Your task to perform on an android device: Open the map Image 0: 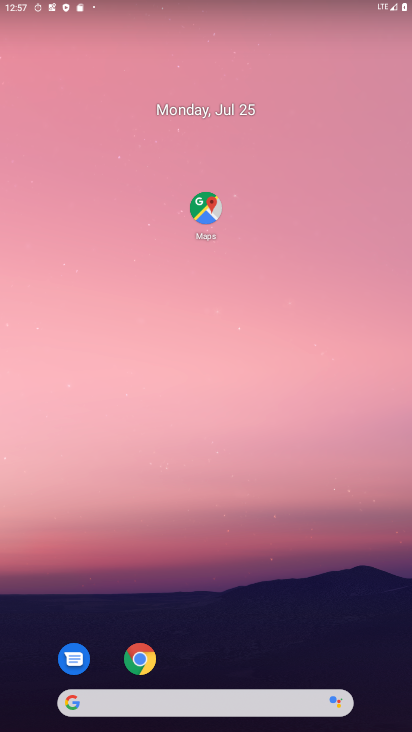
Step 0: click (201, 196)
Your task to perform on an android device: Open the map Image 1: 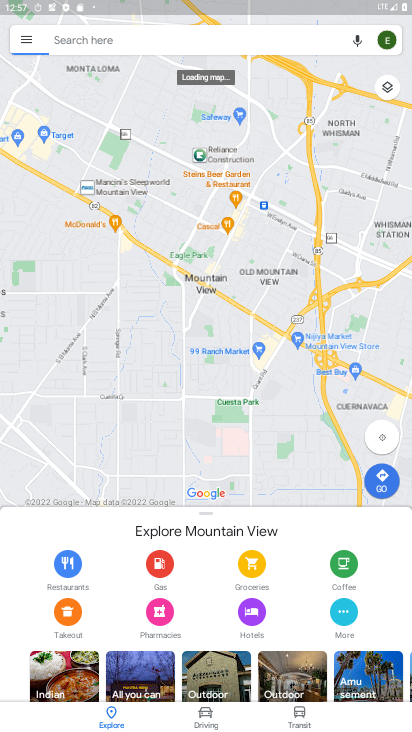
Step 1: task complete